Your task to perform on an android device: turn smart compose on in the gmail app Image 0: 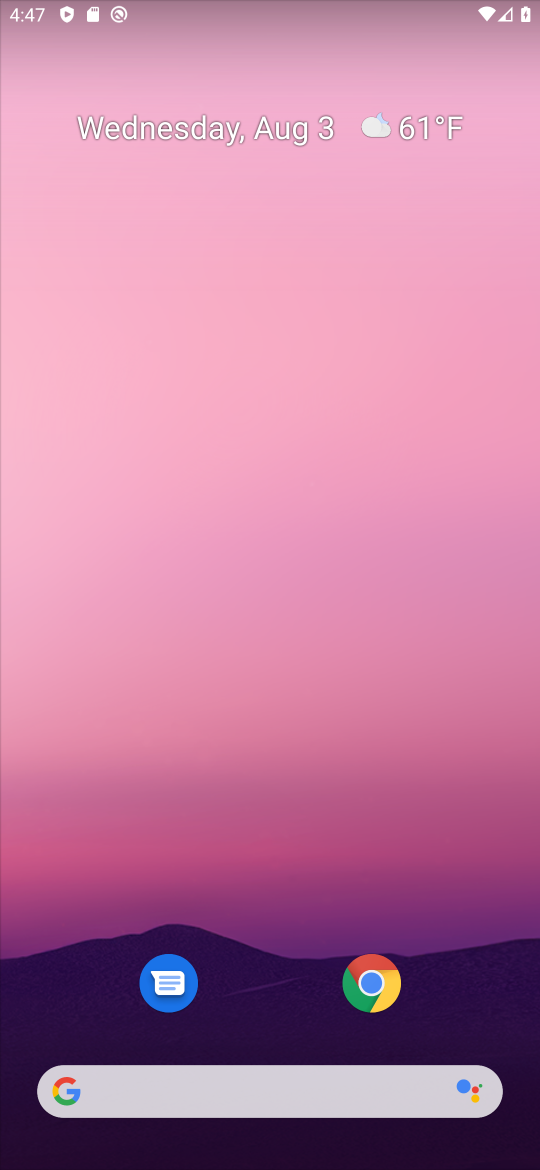
Step 0: press home button
Your task to perform on an android device: turn smart compose on in the gmail app Image 1: 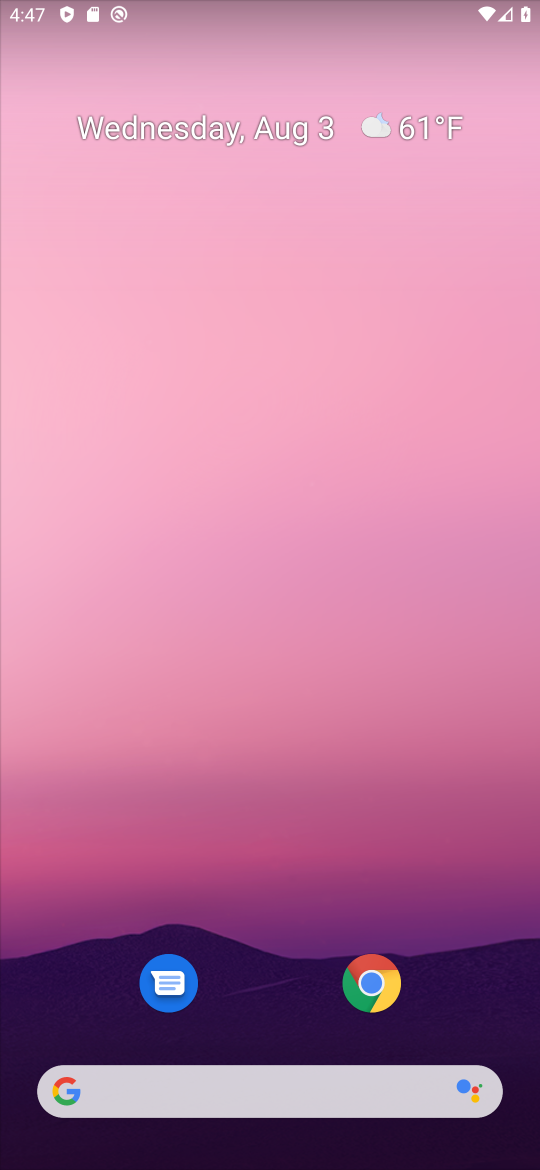
Step 1: press home button
Your task to perform on an android device: turn smart compose on in the gmail app Image 2: 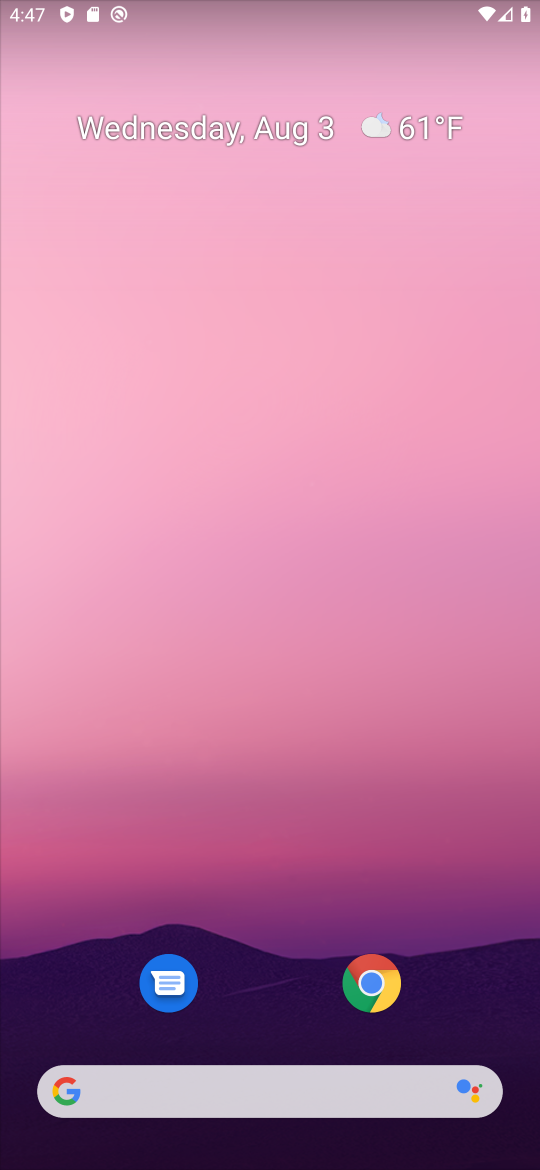
Step 2: drag from (301, 945) to (395, 282)
Your task to perform on an android device: turn smart compose on in the gmail app Image 3: 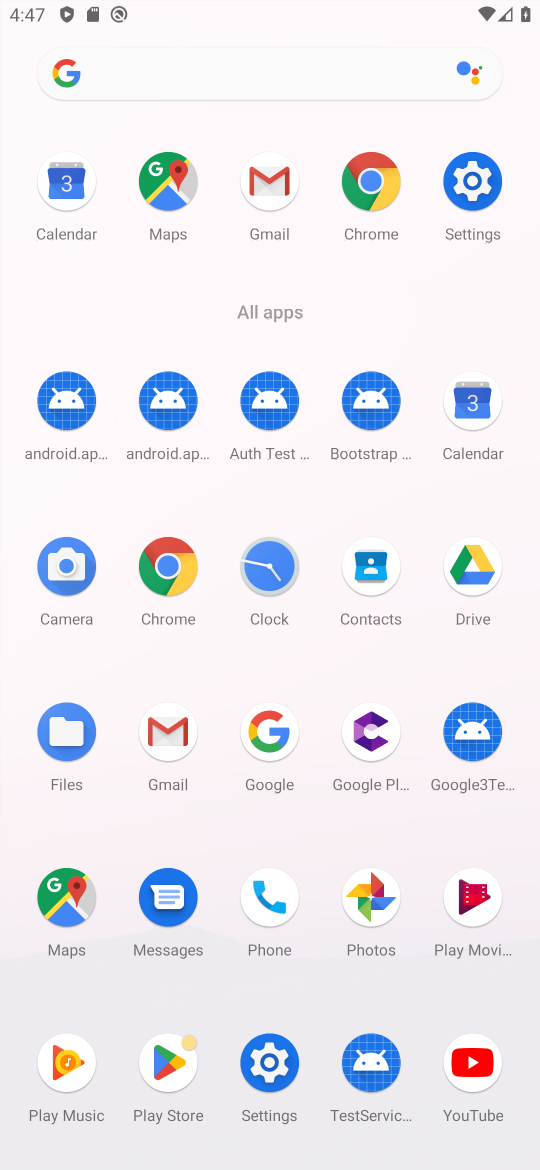
Step 3: click (265, 195)
Your task to perform on an android device: turn smart compose on in the gmail app Image 4: 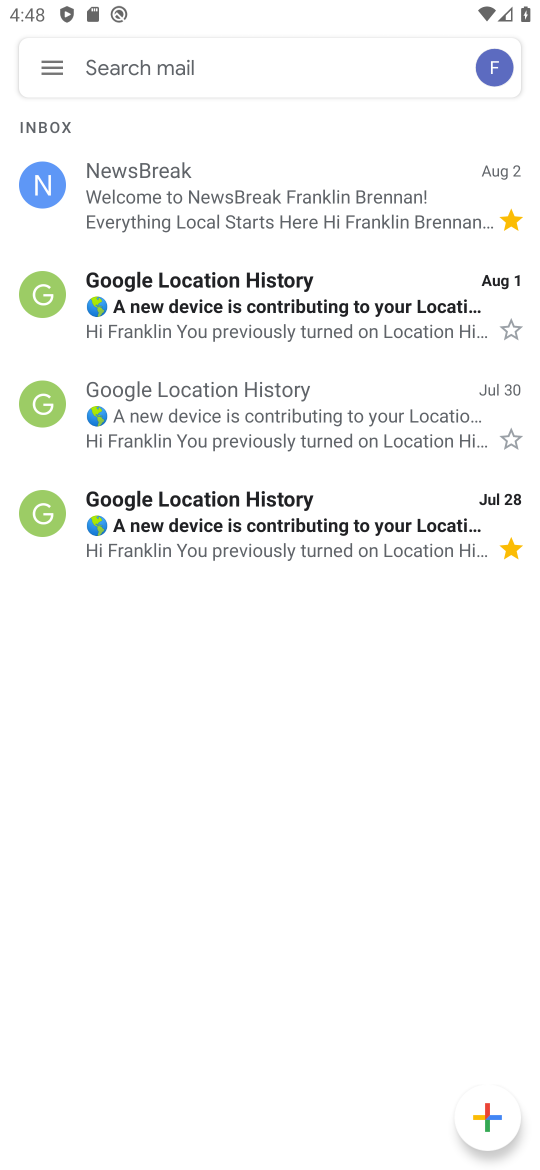
Step 4: click (49, 72)
Your task to perform on an android device: turn smart compose on in the gmail app Image 5: 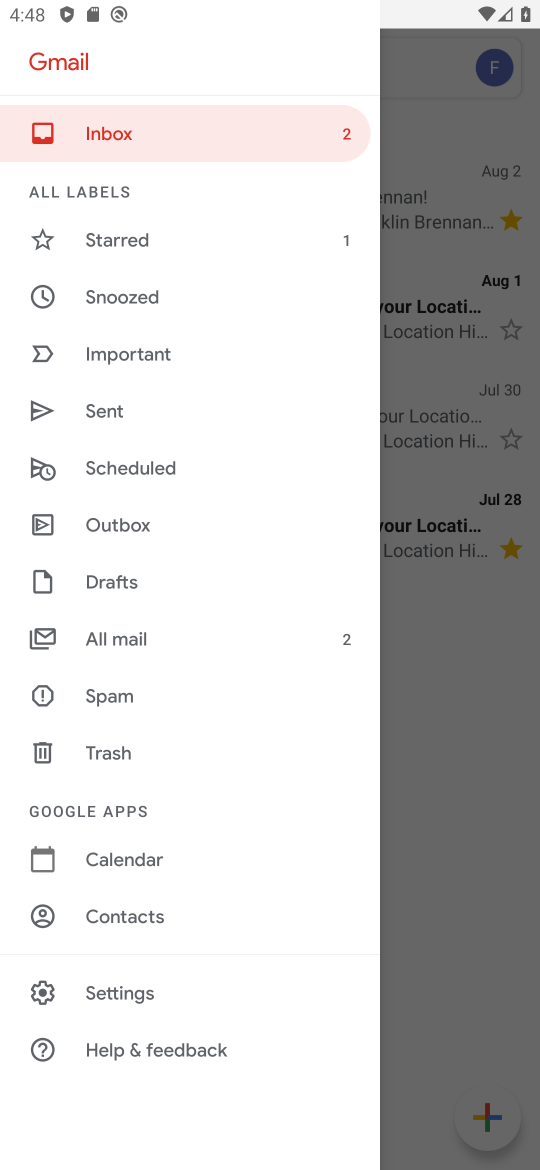
Step 5: click (132, 996)
Your task to perform on an android device: turn smart compose on in the gmail app Image 6: 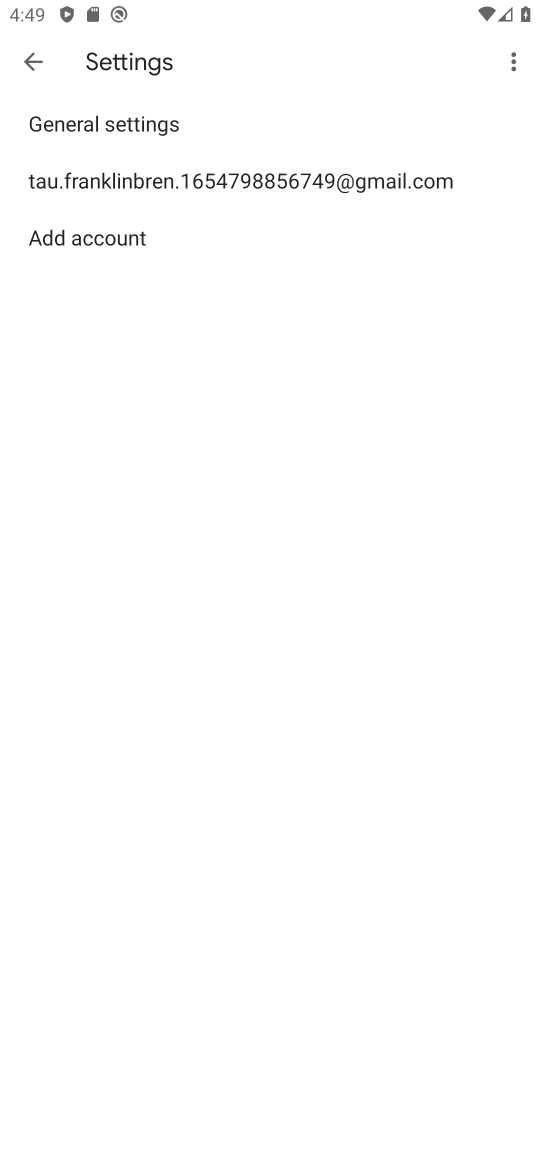
Step 6: click (148, 177)
Your task to perform on an android device: turn smart compose on in the gmail app Image 7: 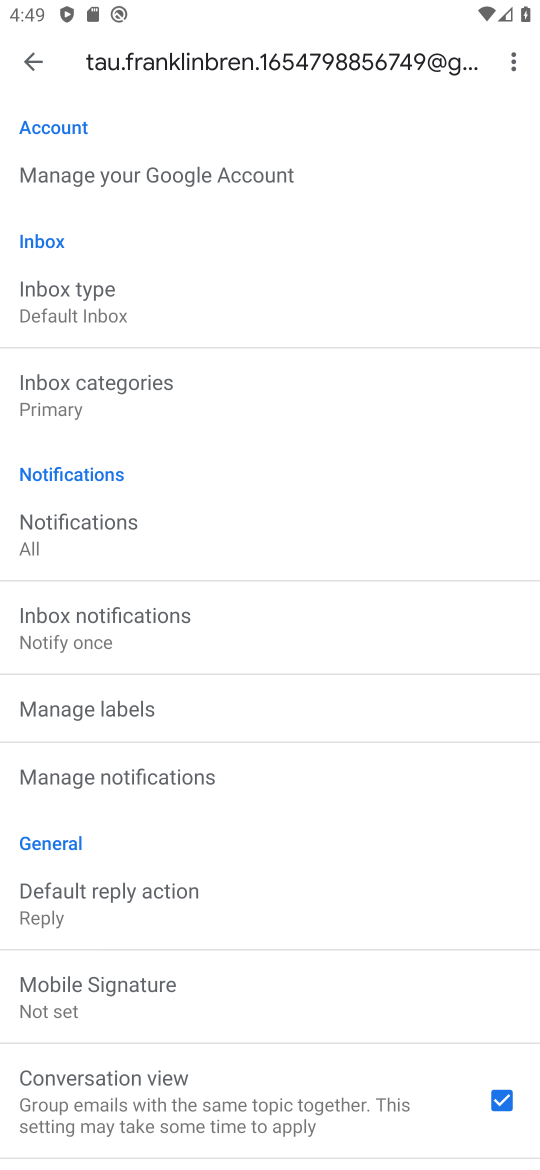
Step 7: task complete